Your task to perform on an android device: install app "Pluto TV - Live TV and Movies" Image 0: 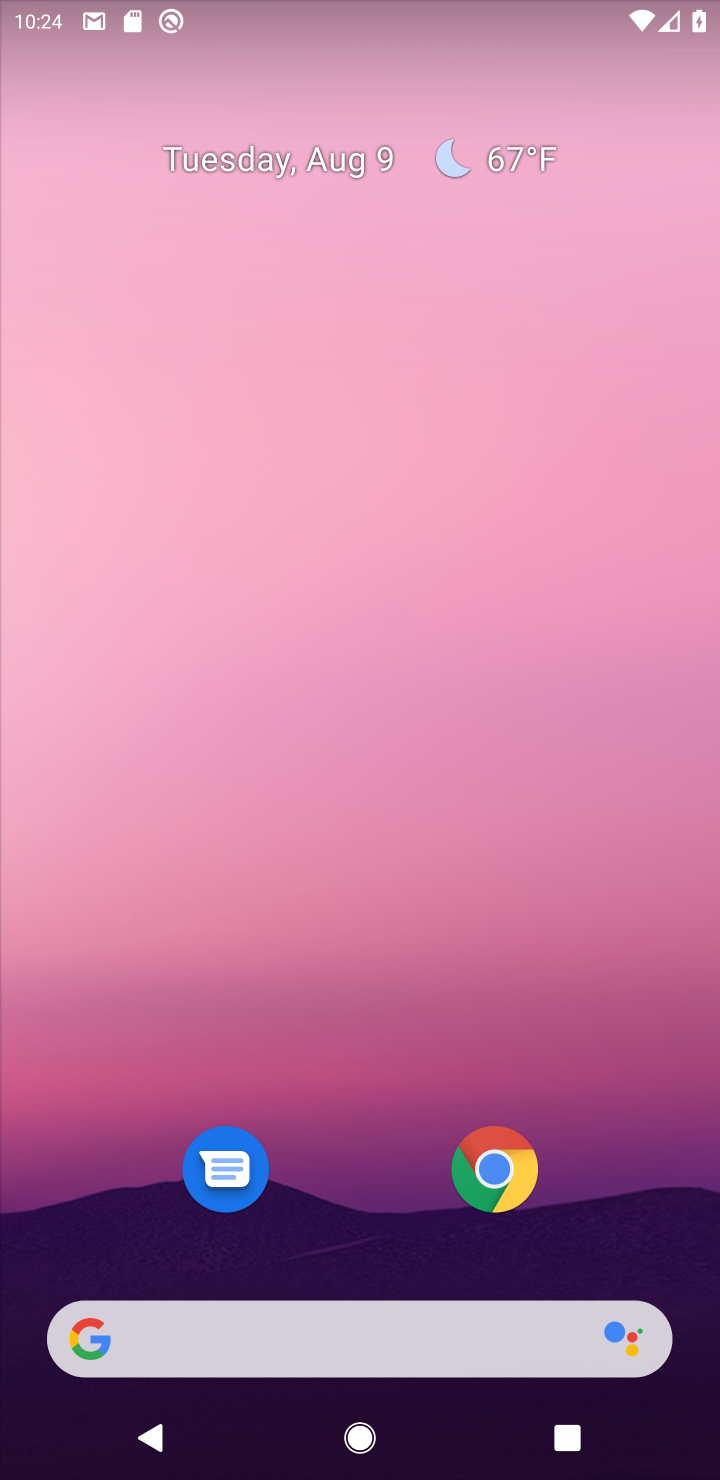
Step 0: press home button
Your task to perform on an android device: install app "Pluto TV - Live TV and Movies" Image 1: 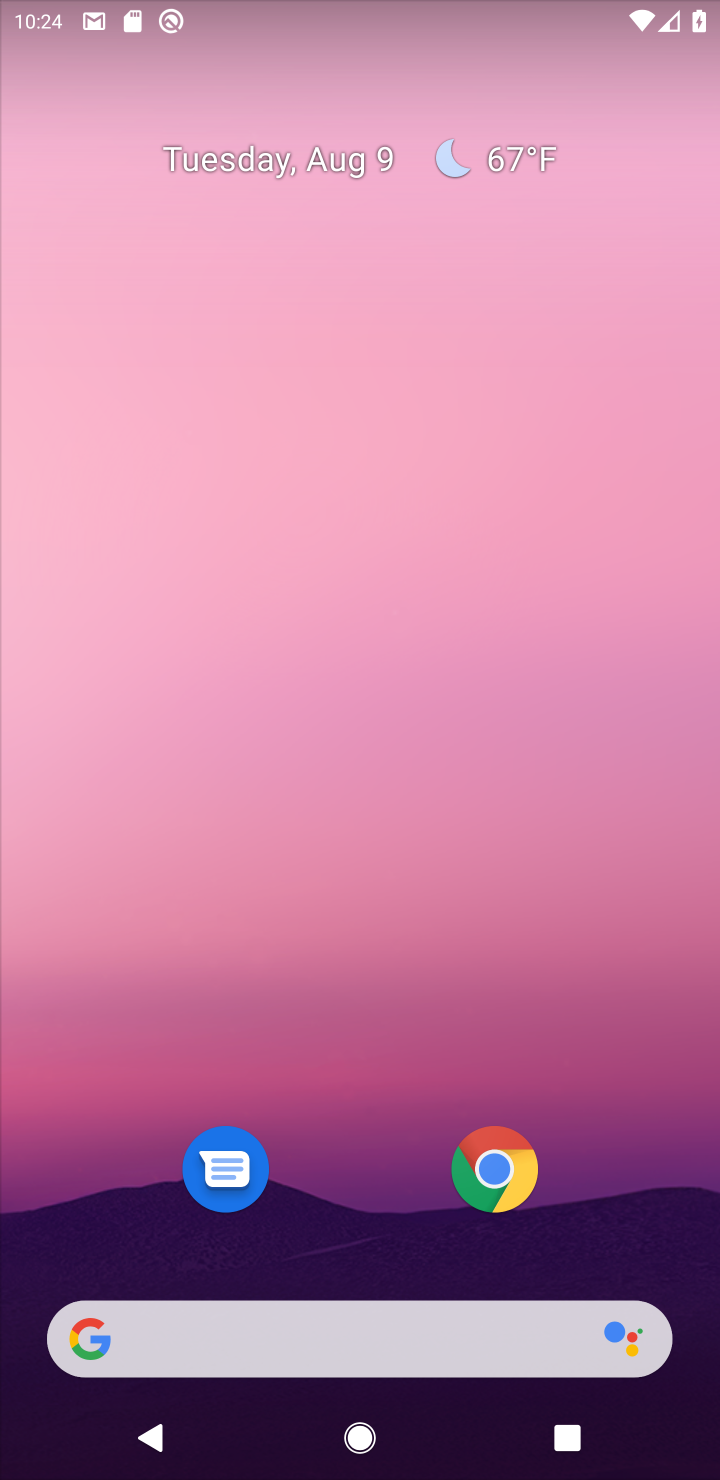
Step 1: drag from (611, 1225) to (643, 83)
Your task to perform on an android device: install app "Pluto TV - Live TV and Movies" Image 2: 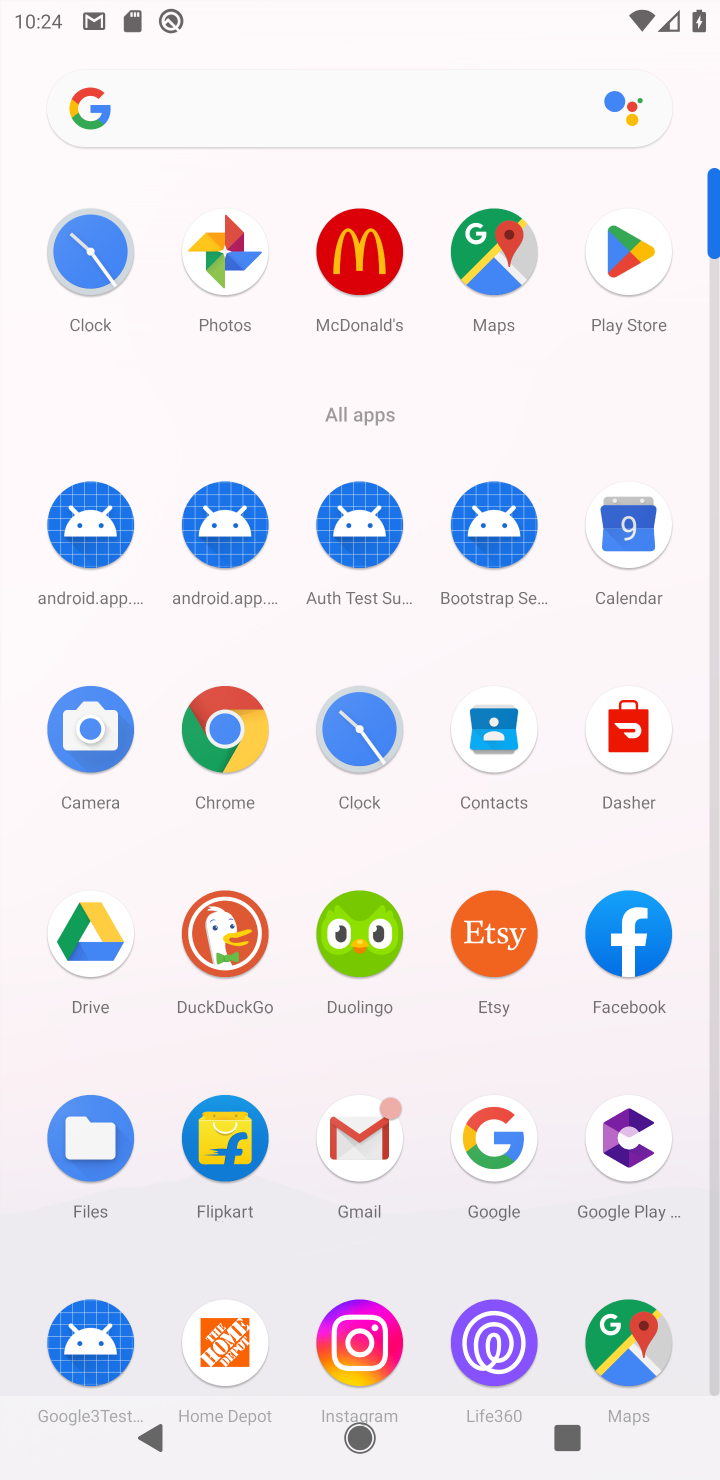
Step 2: click (605, 259)
Your task to perform on an android device: install app "Pluto TV - Live TV and Movies" Image 3: 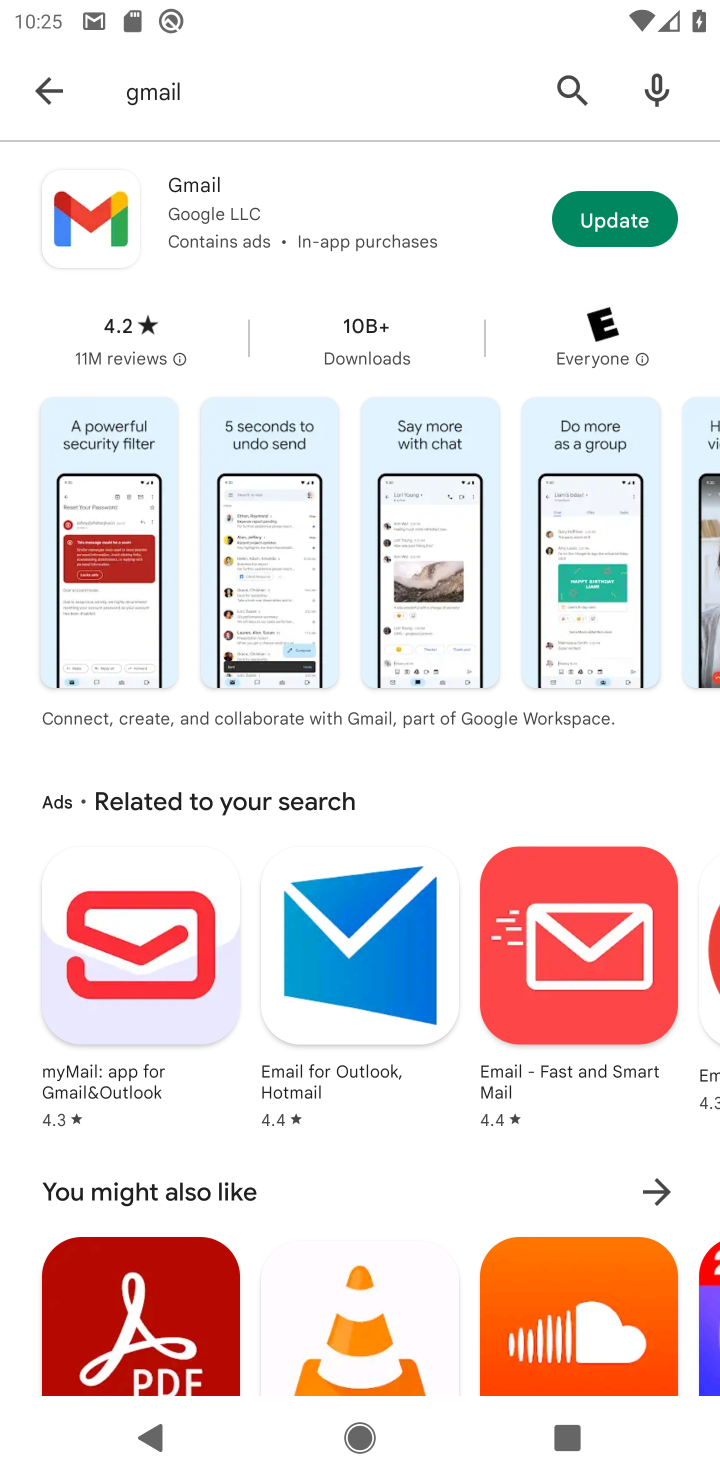
Step 3: click (566, 93)
Your task to perform on an android device: install app "Pluto TV - Live TV and Movies" Image 4: 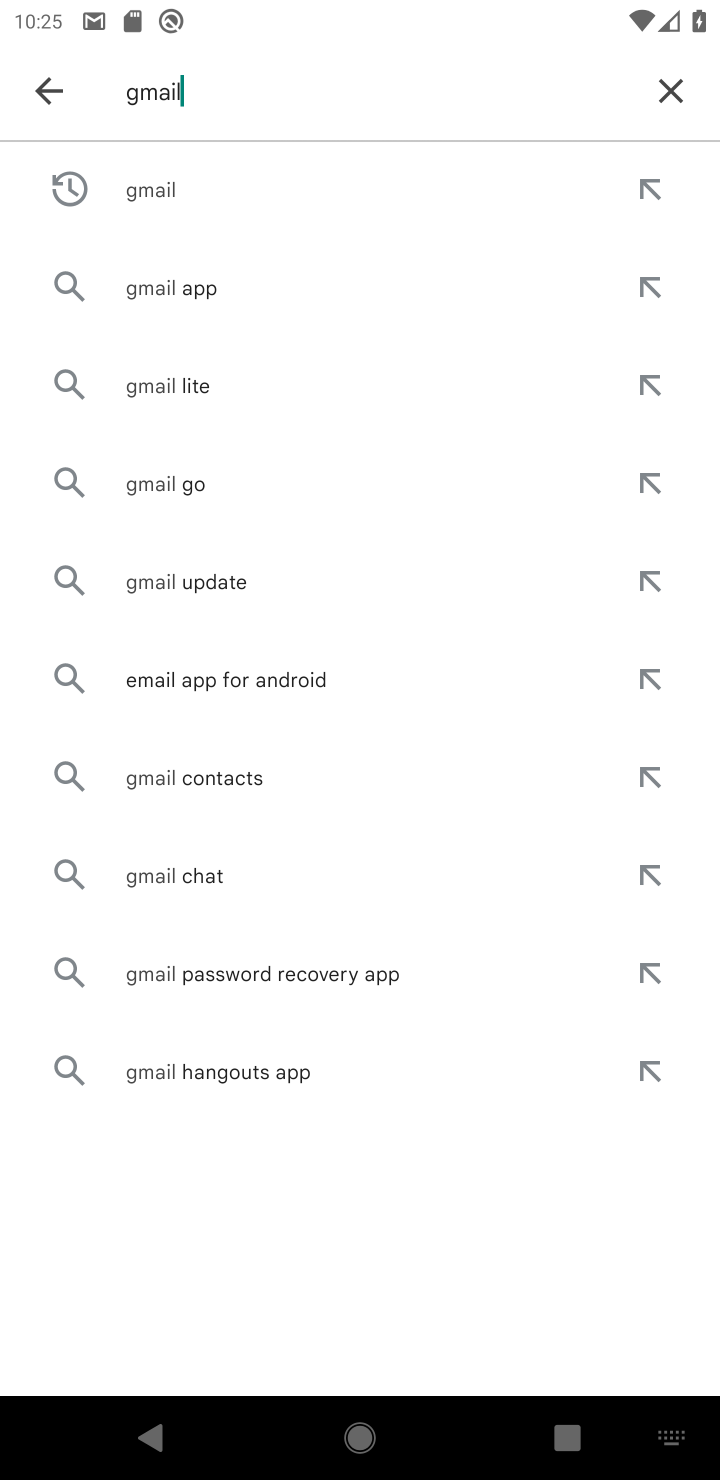
Step 4: click (675, 80)
Your task to perform on an android device: install app "Pluto TV - Live TV and Movies" Image 5: 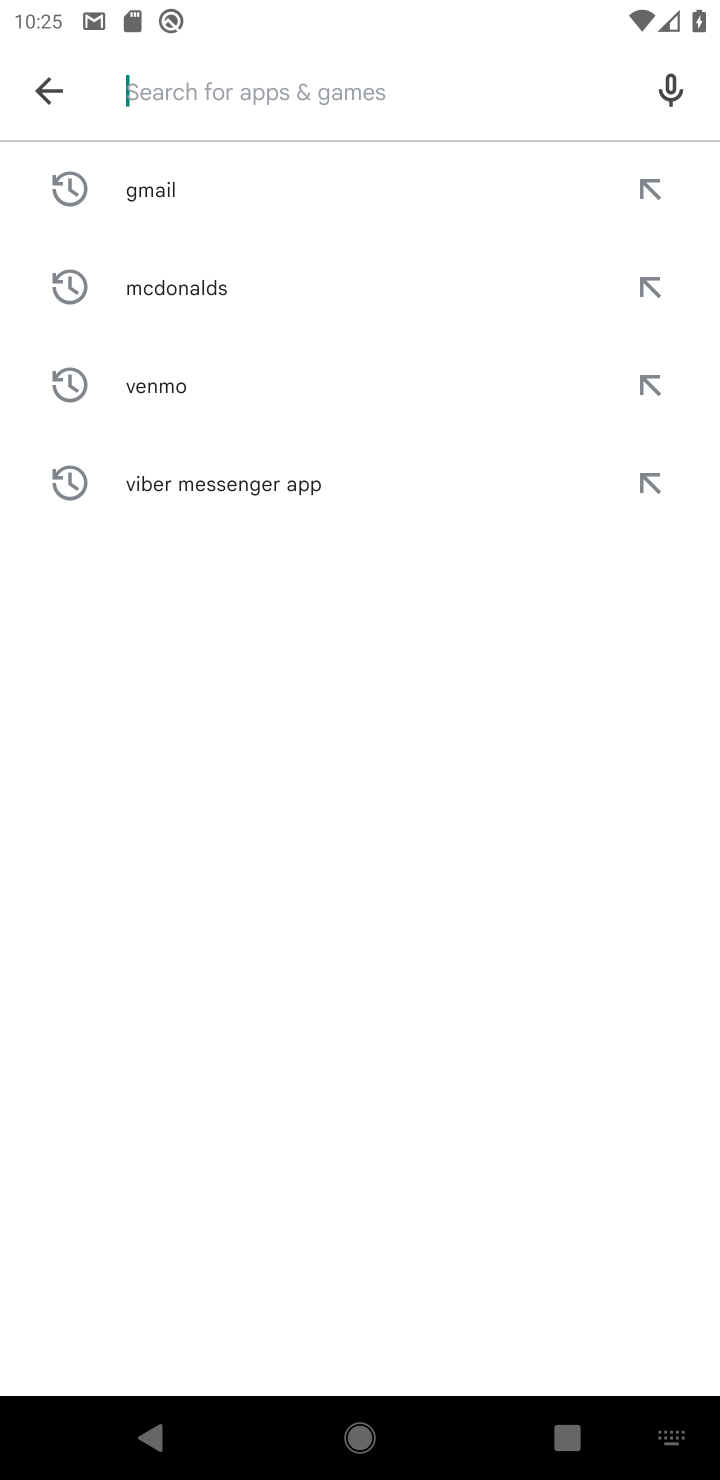
Step 5: type "Pluto TV - Live TV and Movies"
Your task to perform on an android device: install app "Pluto TV - Live TV and Movies" Image 6: 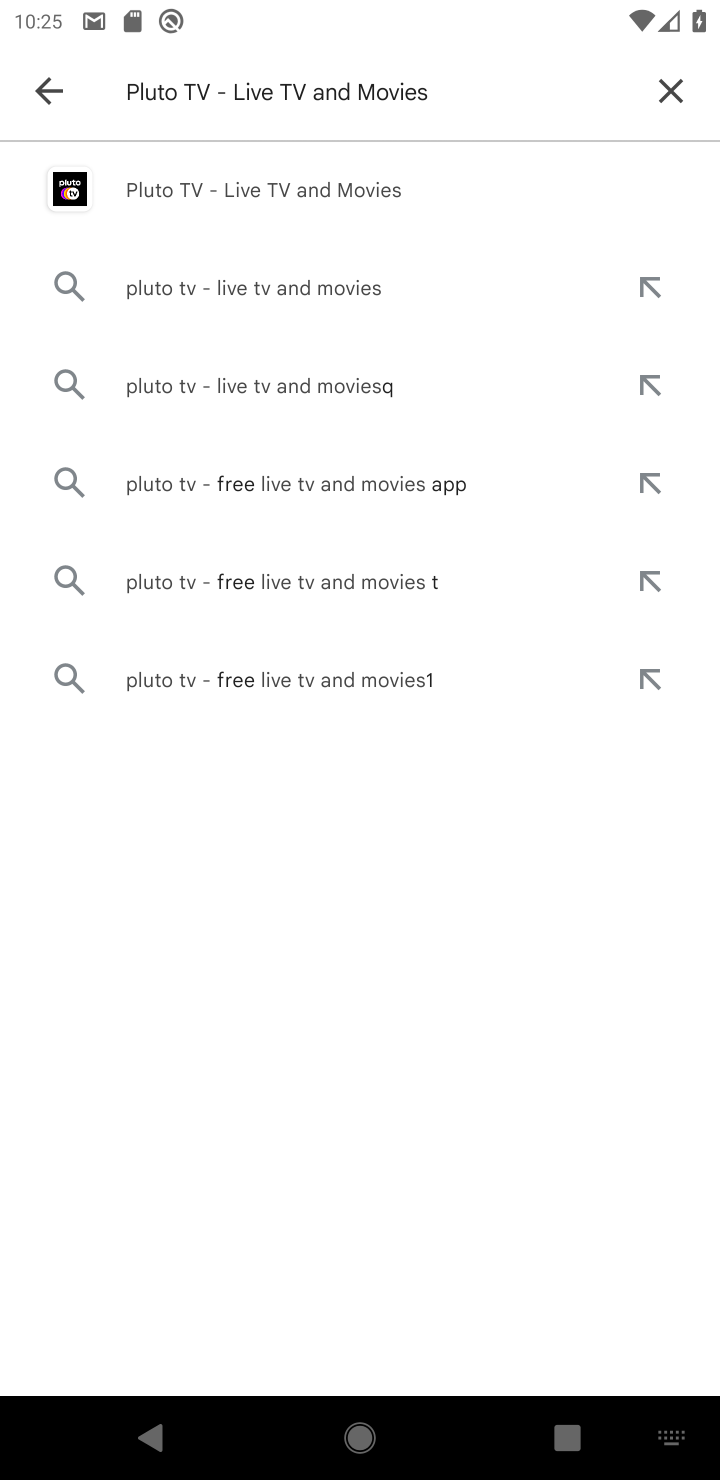
Step 6: click (229, 195)
Your task to perform on an android device: install app "Pluto TV - Live TV and Movies" Image 7: 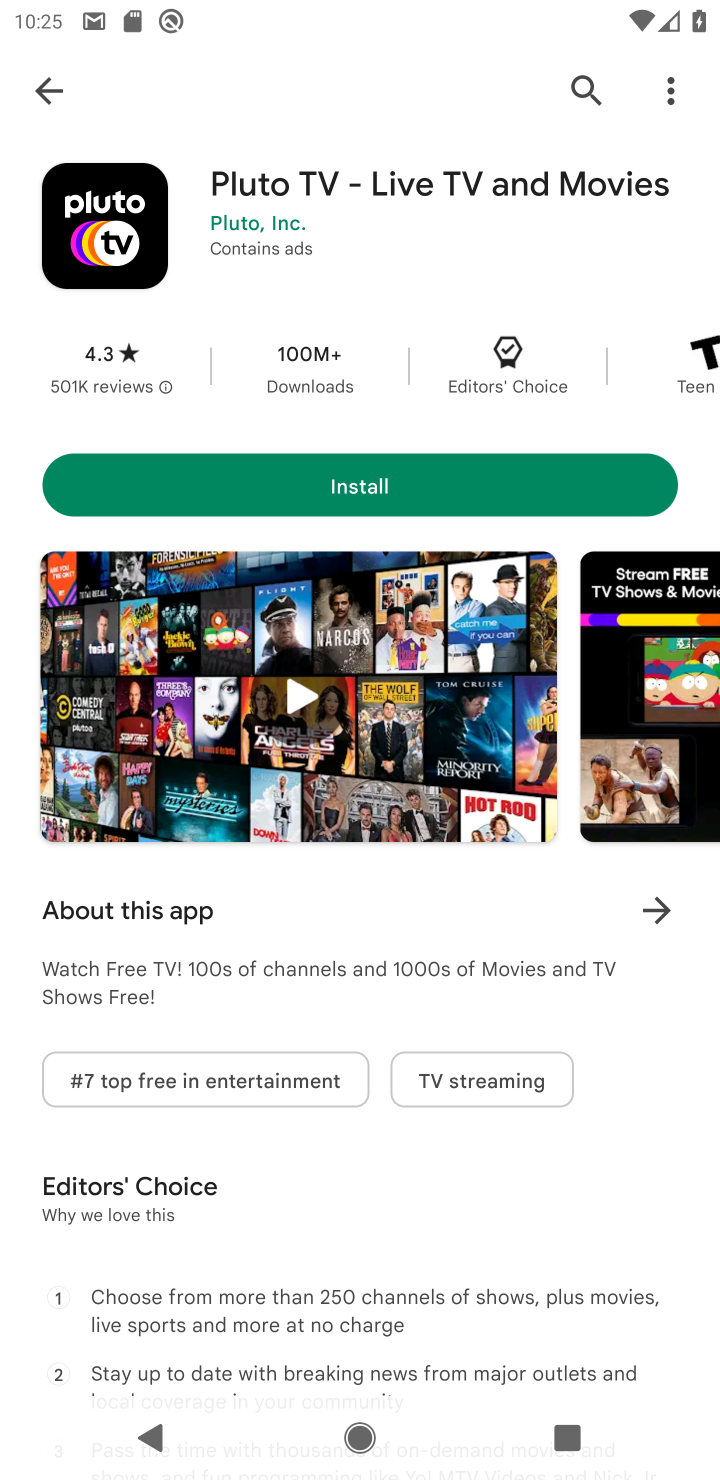
Step 7: click (437, 487)
Your task to perform on an android device: install app "Pluto TV - Live TV and Movies" Image 8: 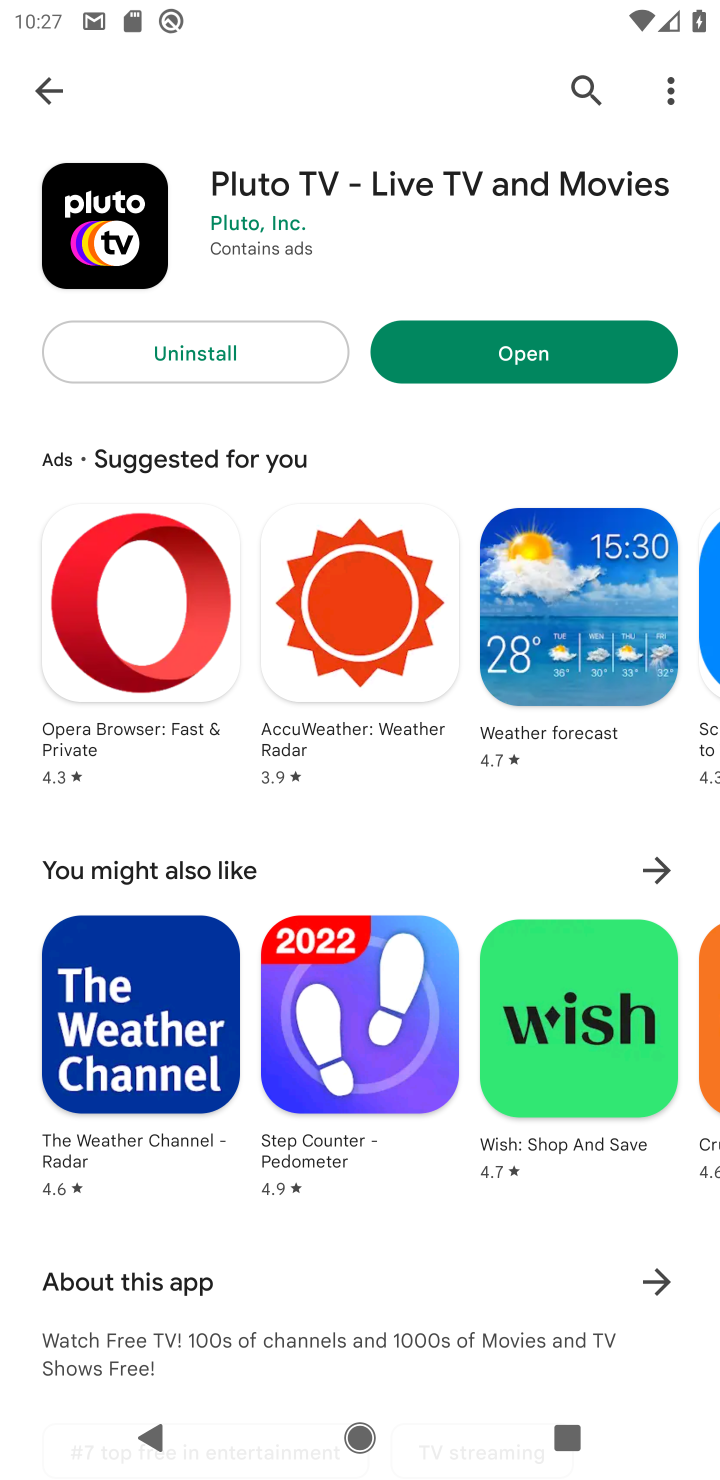
Step 8: task complete